Your task to perform on an android device: check data usage Image 0: 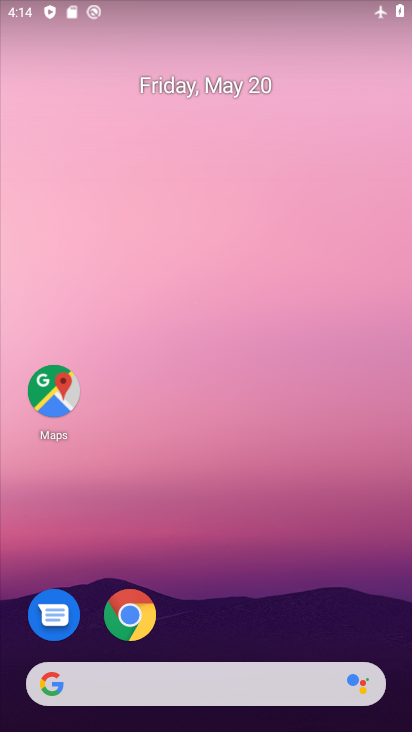
Step 0: drag from (215, 679) to (257, 142)
Your task to perform on an android device: check data usage Image 1: 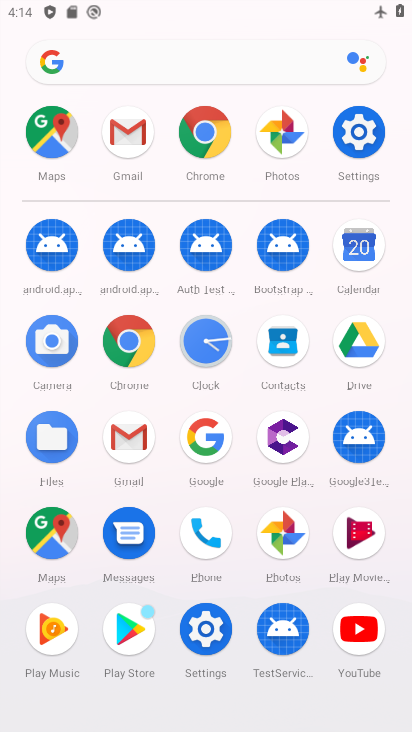
Step 1: click (354, 151)
Your task to perform on an android device: check data usage Image 2: 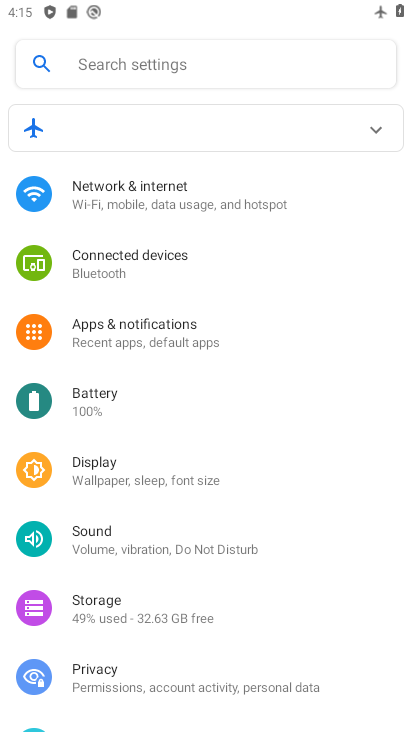
Step 2: click (175, 185)
Your task to perform on an android device: check data usage Image 3: 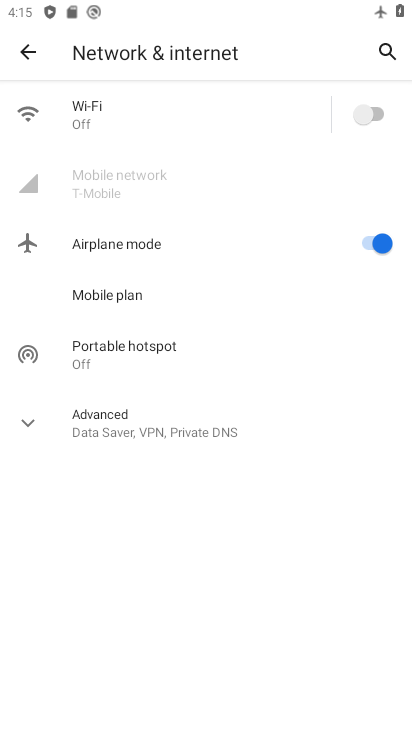
Step 3: click (157, 196)
Your task to perform on an android device: check data usage Image 4: 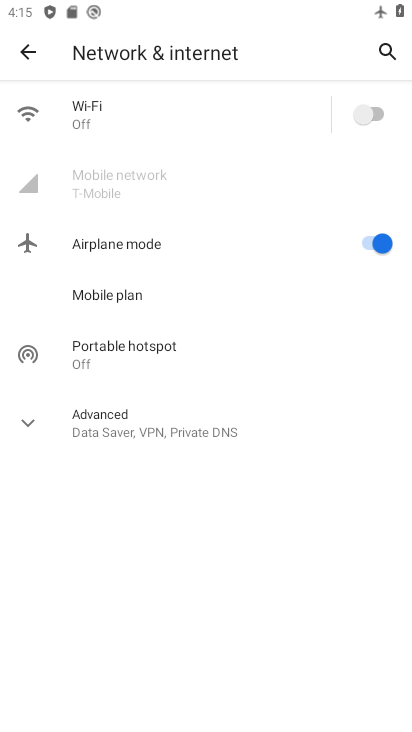
Step 4: task complete